Your task to perform on an android device: What's the weather? Image 0: 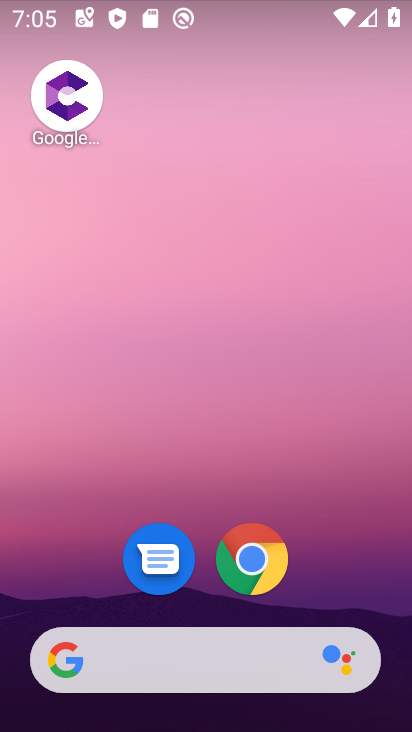
Step 0: drag from (322, 556) to (234, 11)
Your task to perform on an android device: What's the weather? Image 1: 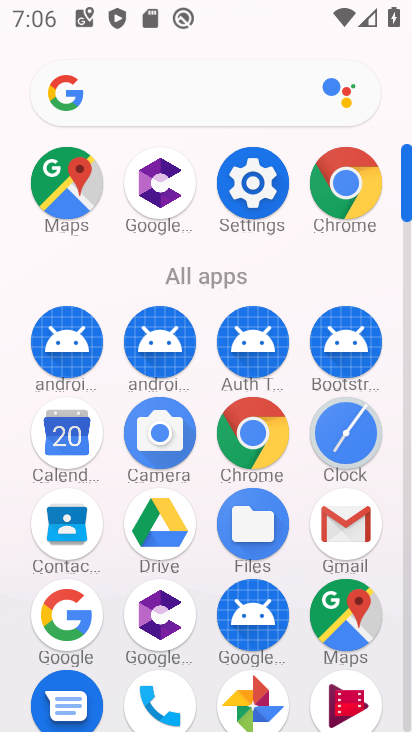
Step 1: click (343, 195)
Your task to perform on an android device: What's the weather? Image 2: 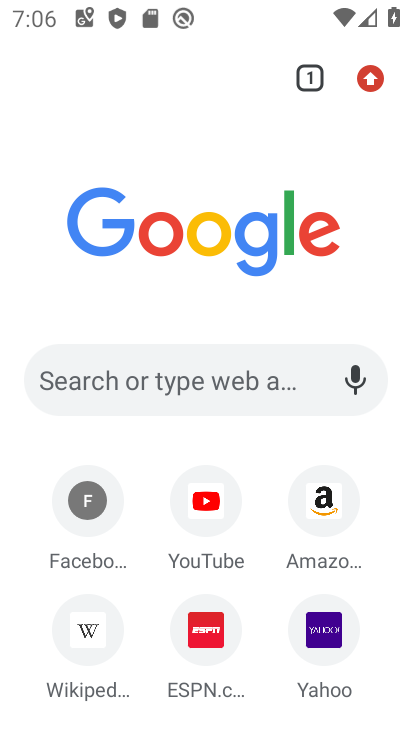
Step 2: click (262, 384)
Your task to perform on an android device: What's the weather? Image 3: 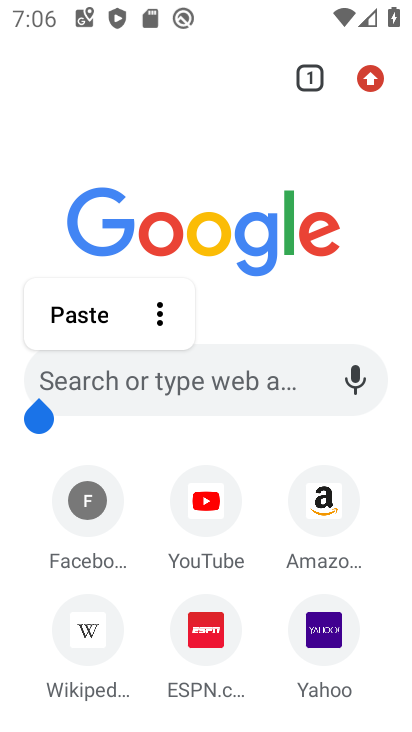
Step 3: click (265, 391)
Your task to perform on an android device: What's the weather? Image 4: 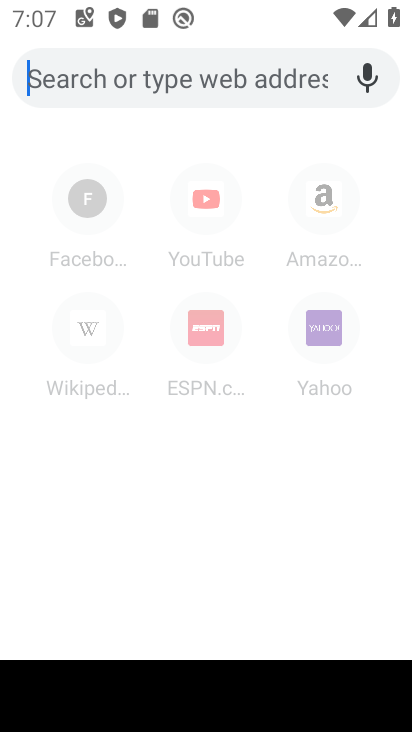
Step 4: type "ushi restaurants on M"
Your task to perform on an android device: What's the weather? Image 5: 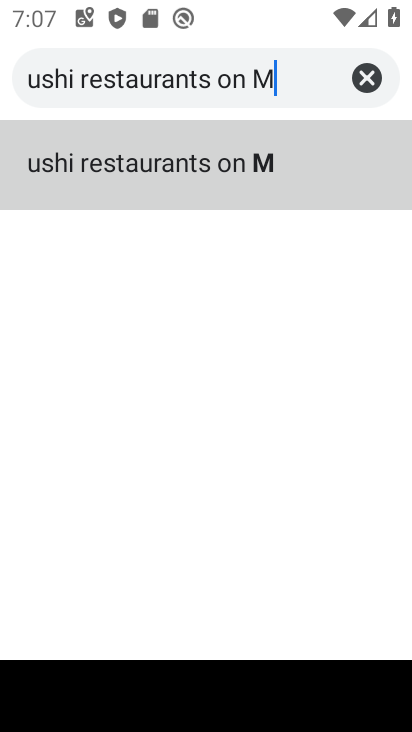
Step 5: type "What's the weather?"
Your task to perform on an android device: What's the weather? Image 6: 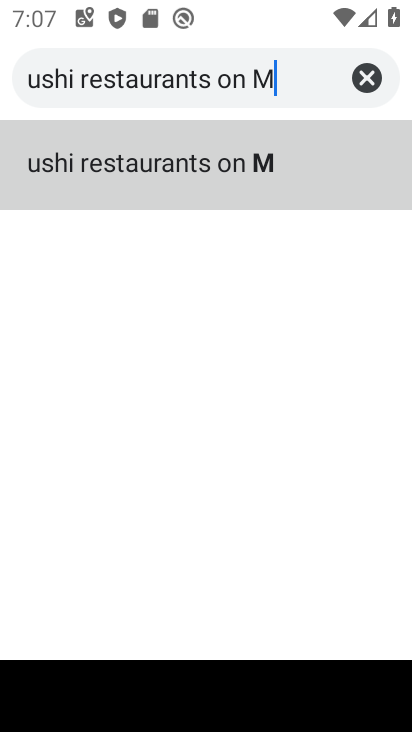
Step 6: click (361, 70)
Your task to perform on an android device: What's the weather? Image 7: 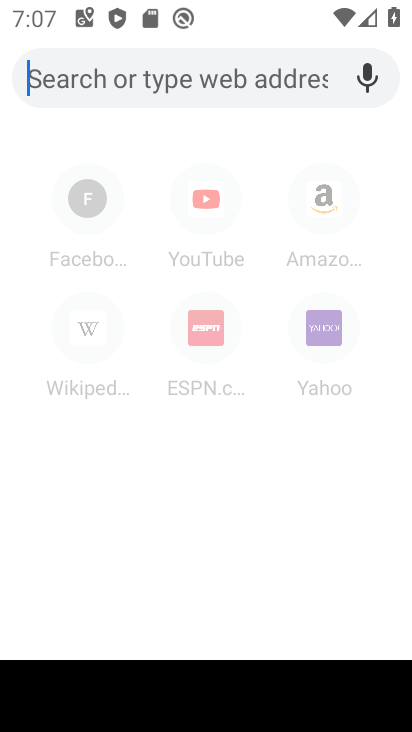
Step 7: type "What's the weather?"
Your task to perform on an android device: What's the weather? Image 8: 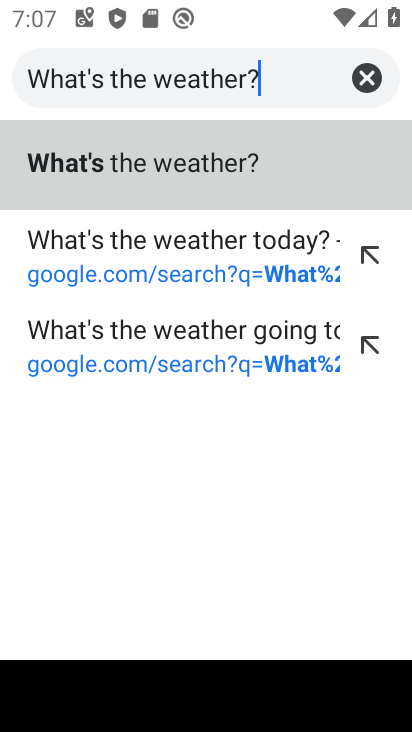
Step 8: click (211, 179)
Your task to perform on an android device: What's the weather? Image 9: 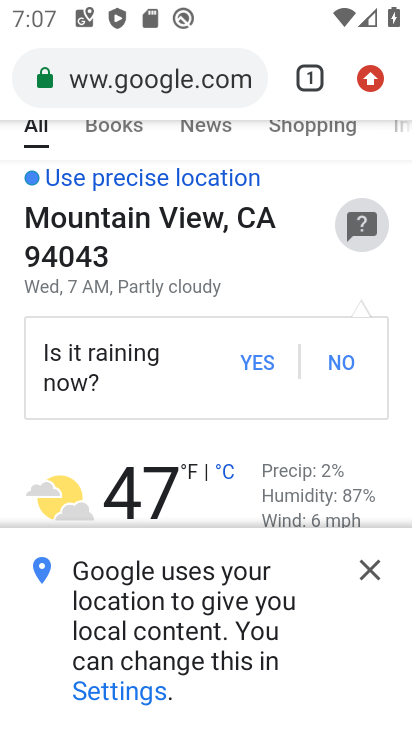
Step 9: task complete